Your task to perform on an android device: Open the map Image 0: 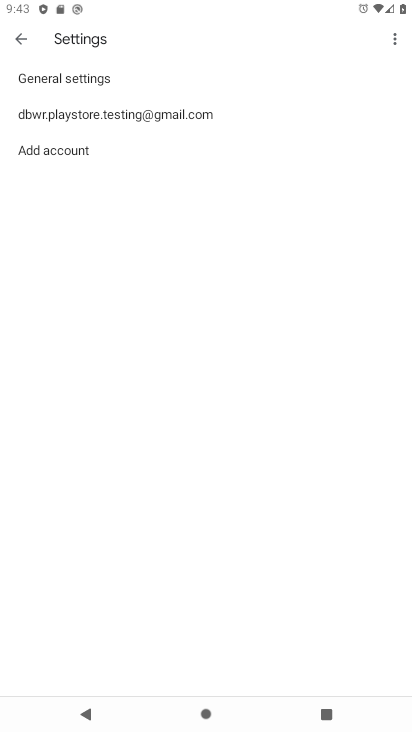
Step 0: press home button
Your task to perform on an android device: Open the map Image 1: 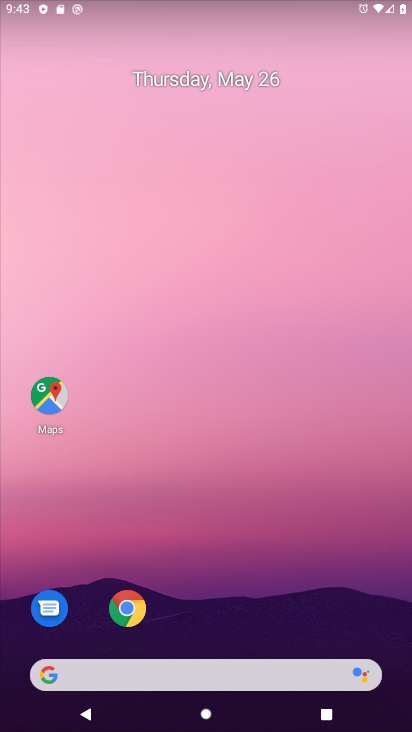
Step 1: click (47, 408)
Your task to perform on an android device: Open the map Image 2: 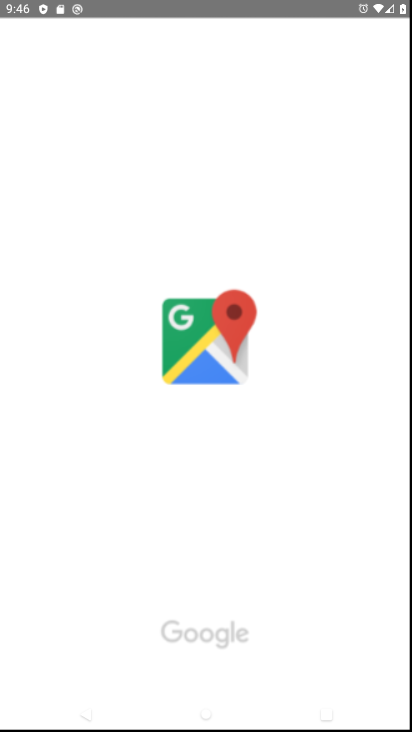
Step 2: task complete